Your task to perform on an android device: turn smart compose on in the gmail app Image 0: 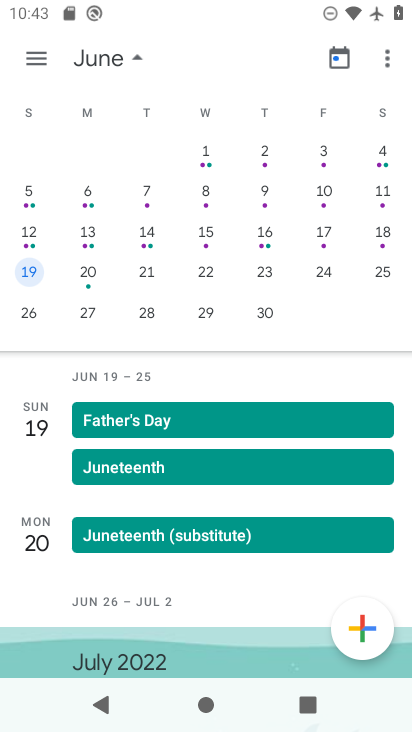
Step 0: press home button
Your task to perform on an android device: turn smart compose on in the gmail app Image 1: 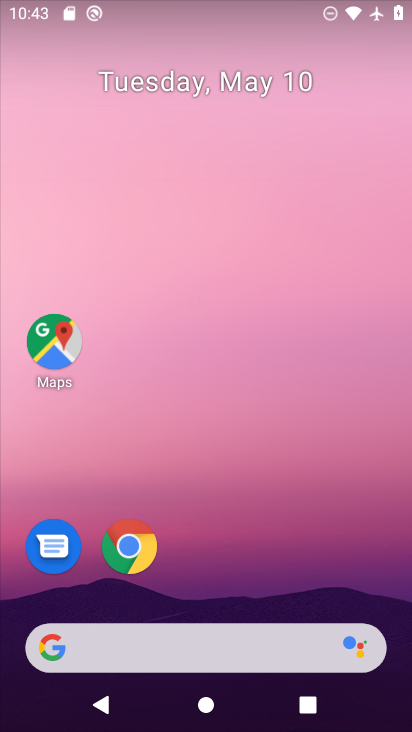
Step 1: drag from (307, 603) to (159, 159)
Your task to perform on an android device: turn smart compose on in the gmail app Image 2: 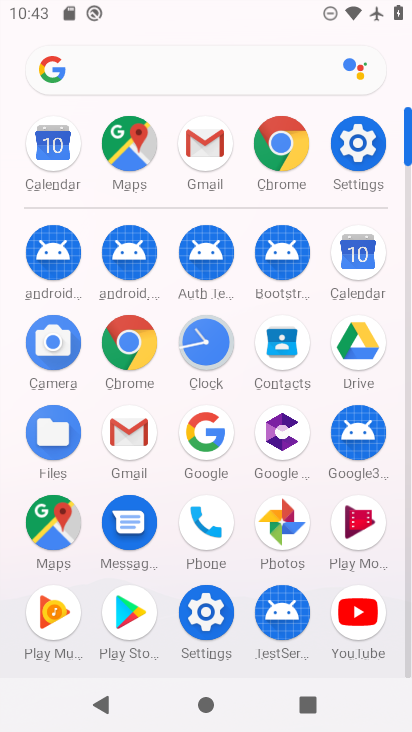
Step 2: click (210, 151)
Your task to perform on an android device: turn smart compose on in the gmail app Image 3: 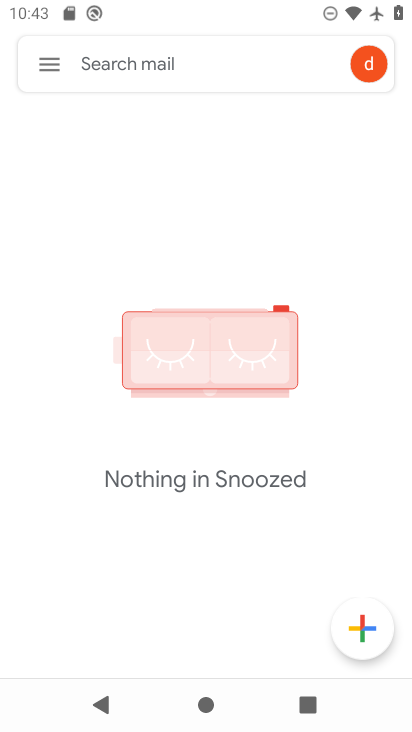
Step 3: click (47, 51)
Your task to perform on an android device: turn smart compose on in the gmail app Image 4: 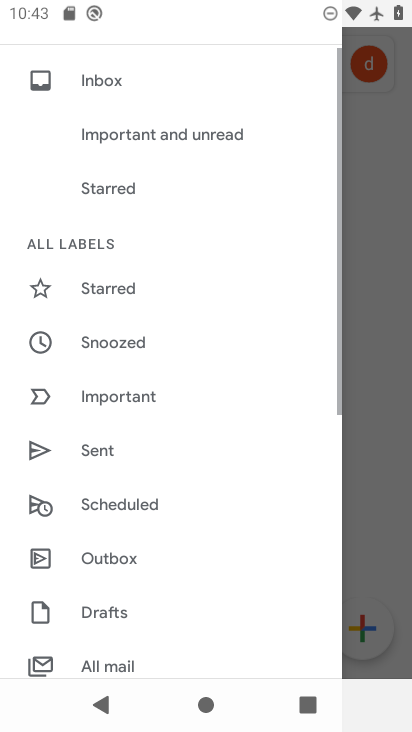
Step 4: drag from (178, 583) to (272, 139)
Your task to perform on an android device: turn smart compose on in the gmail app Image 5: 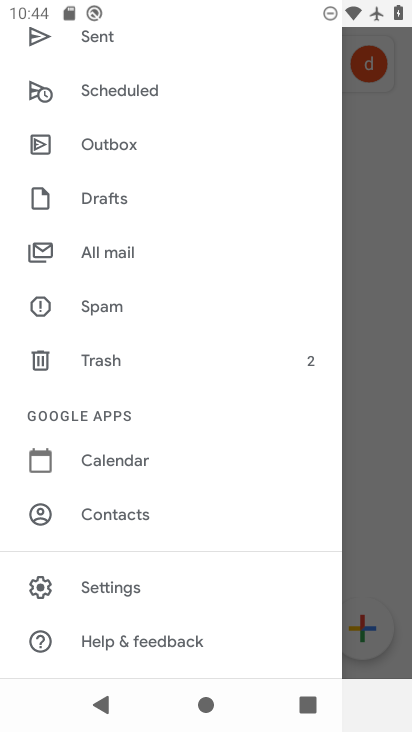
Step 5: click (128, 602)
Your task to perform on an android device: turn smart compose on in the gmail app Image 6: 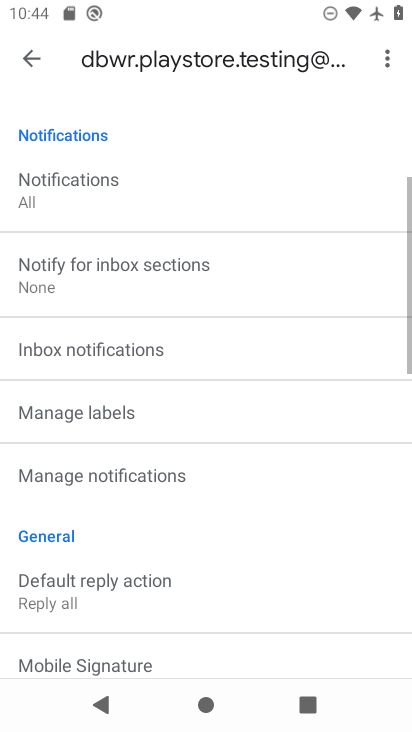
Step 6: task complete